Your task to perform on an android device: Turn on the flashlight Image 0: 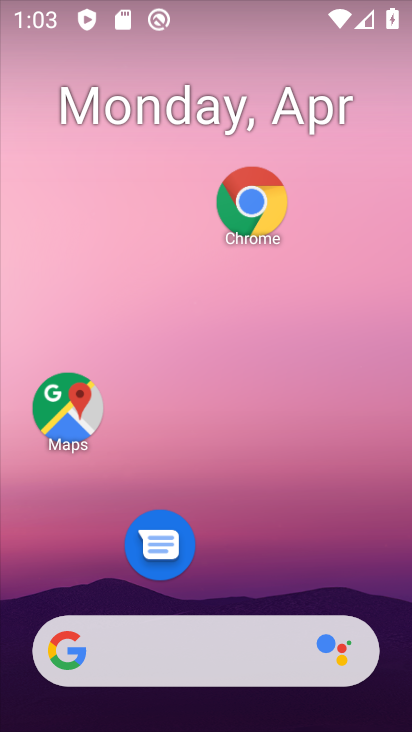
Step 0: drag from (244, 16) to (286, 645)
Your task to perform on an android device: Turn on the flashlight Image 1: 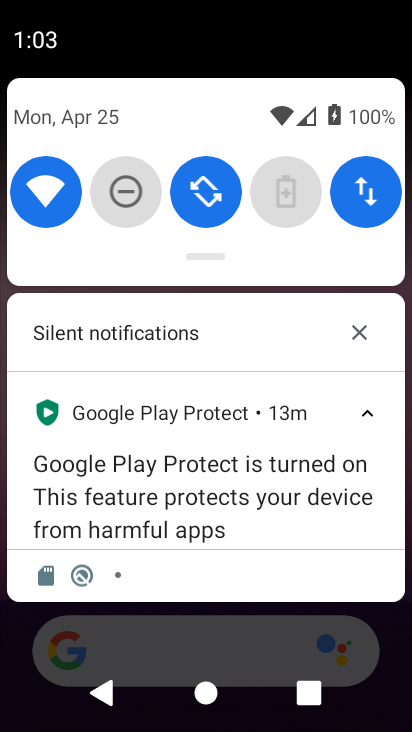
Step 1: drag from (214, 93) to (310, 580)
Your task to perform on an android device: Turn on the flashlight Image 2: 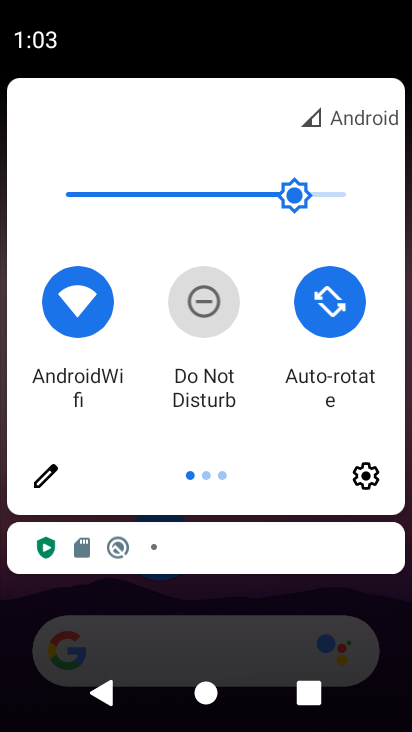
Step 2: click (370, 486)
Your task to perform on an android device: Turn on the flashlight Image 3: 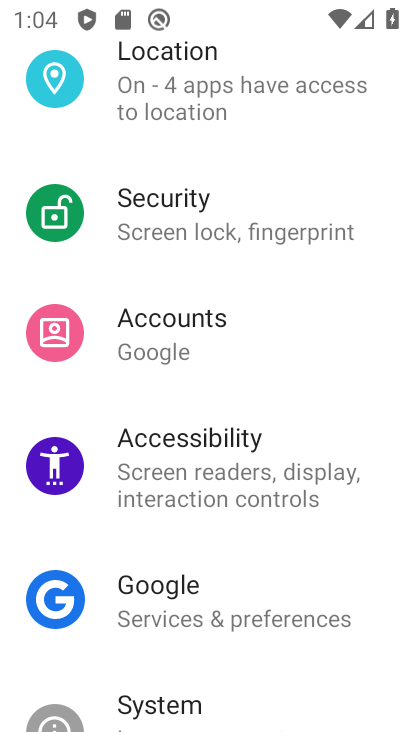
Step 3: task complete